Your task to perform on an android device: turn off priority inbox in the gmail app Image 0: 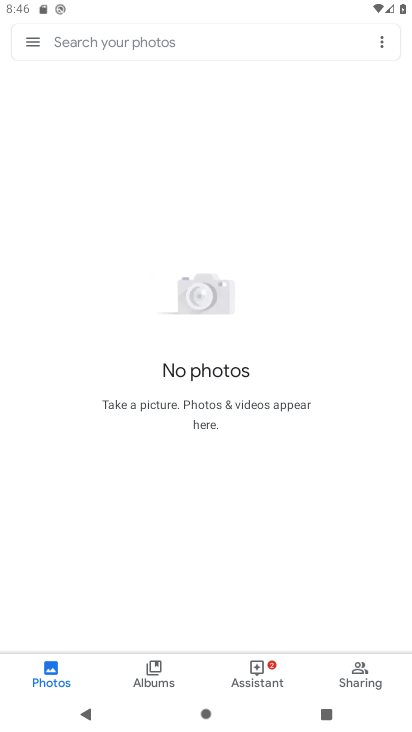
Step 0: press home button
Your task to perform on an android device: turn off priority inbox in the gmail app Image 1: 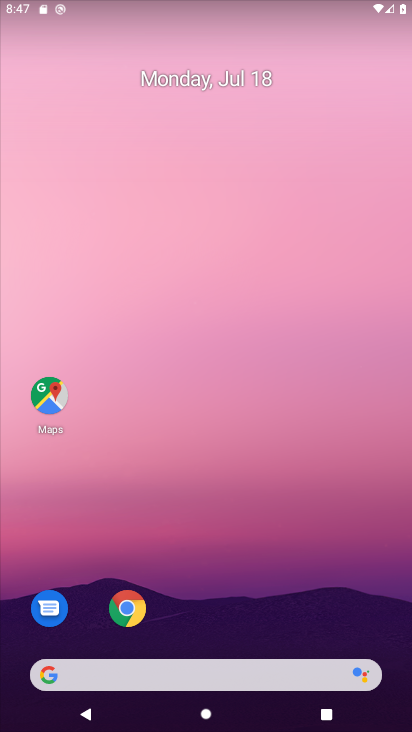
Step 1: drag from (205, 674) to (270, 105)
Your task to perform on an android device: turn off priority inbox in the gmail app Image 2: 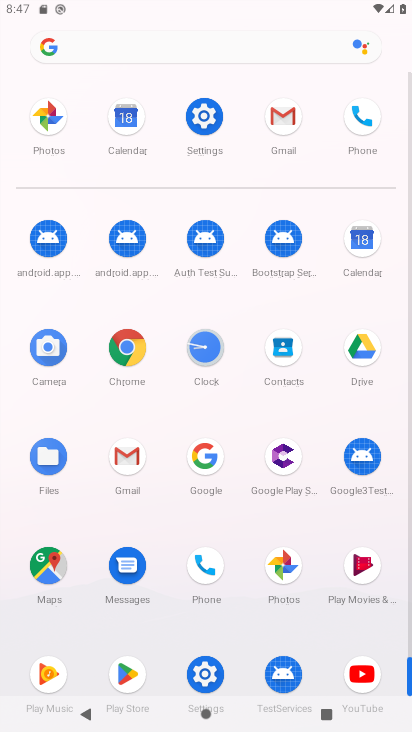
Step 2: click (281, 114)
Your task to perform on an android device: turn off priority inbox in the gmail app Image 3: 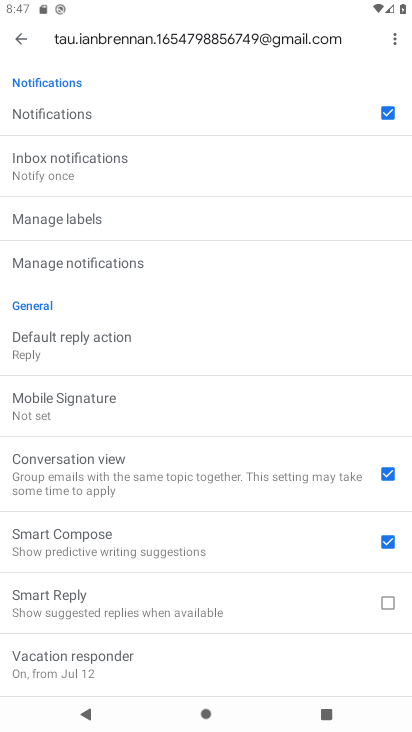
Step 3: drag from (121, 279) to (48, 563)
Your task to perform on an android device: turn off priority inbox in the gmail app Image 4: 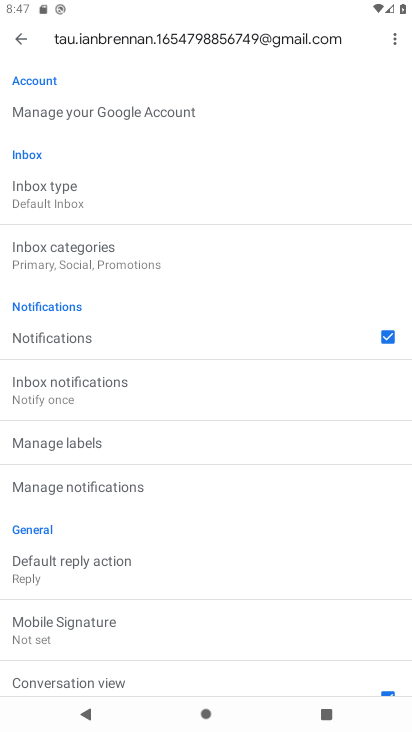
Step 4: click (62, 201)
Your task to perform on an android device: turn off priority inbox in the gmail app Image 5: 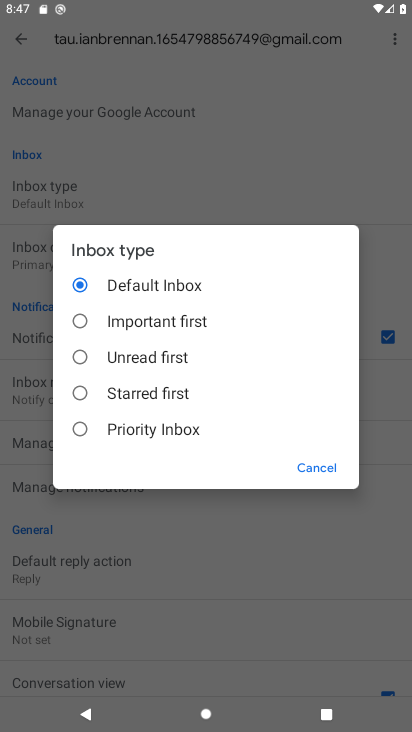
Step 5: click (81, 293)
Your task to perform on an android device: turn off priority inbox in the gmail app Image 6: 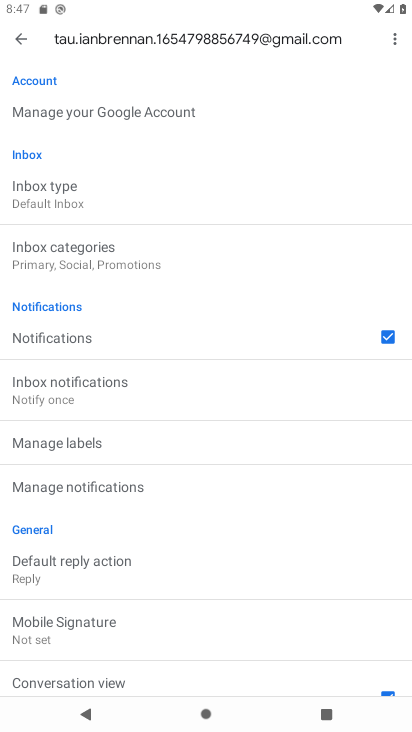
Step 6: task complete